Your task to perform on an android device: Open Google Chrome Image 0: 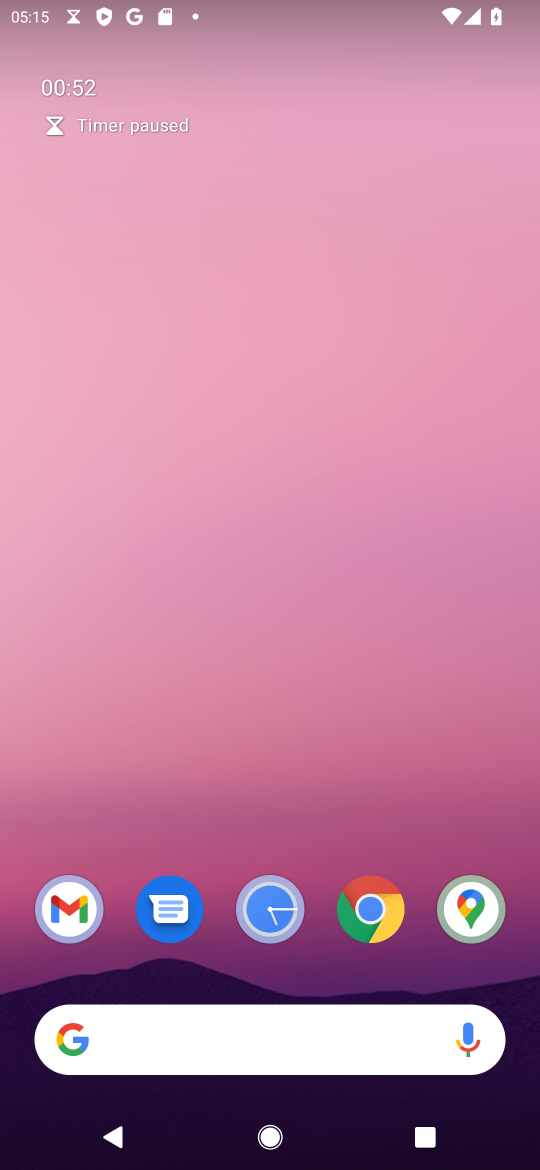
Step 0: click (362, 910)
Your task to perform on an android device: Open Google Chrome Image 1: 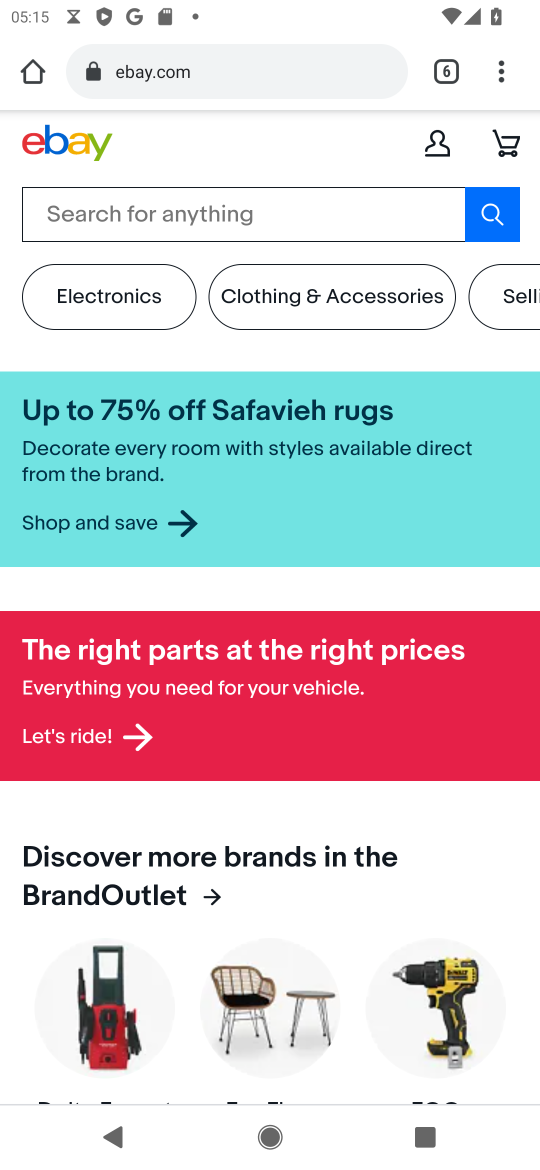
Step 1: task complete